Your task to perform on an android device: check battery use Image 0: 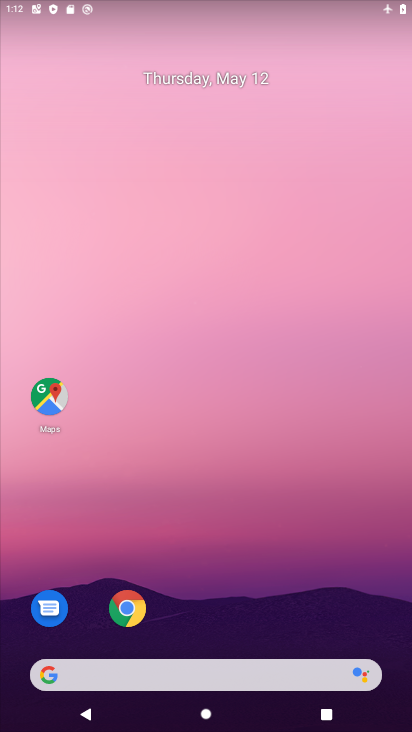
Step 0: drag from (247, 543) to (284, 0)
Your task to perform on an android device: check battery use Image 1: 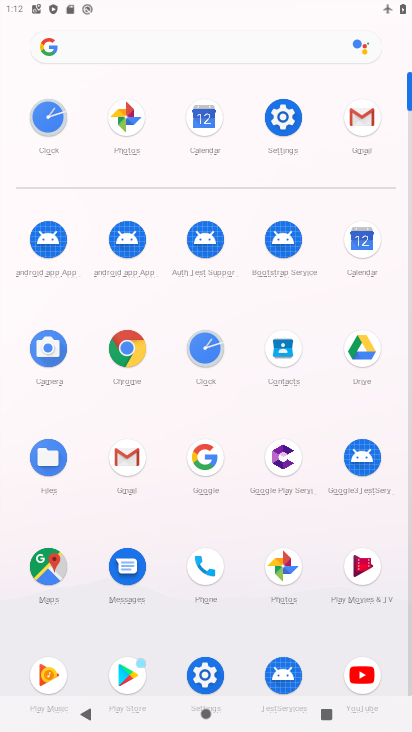
Step 1: click (289, 116)
Your task to perform on an android device: check battery use Image 2: 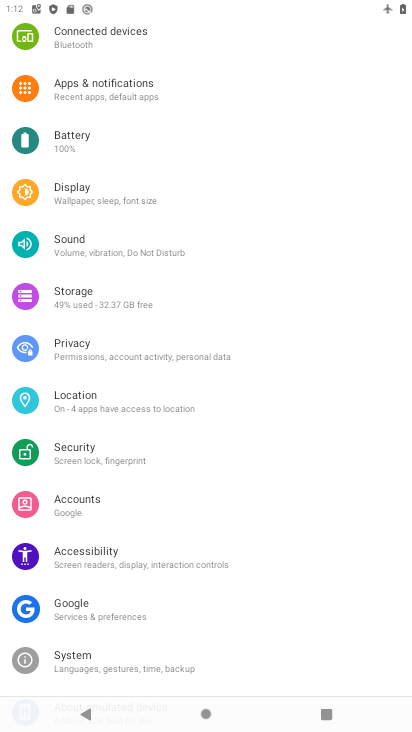
Step 2: click (60, 150)
Your task to perform on an android device: check battery use Image 3: 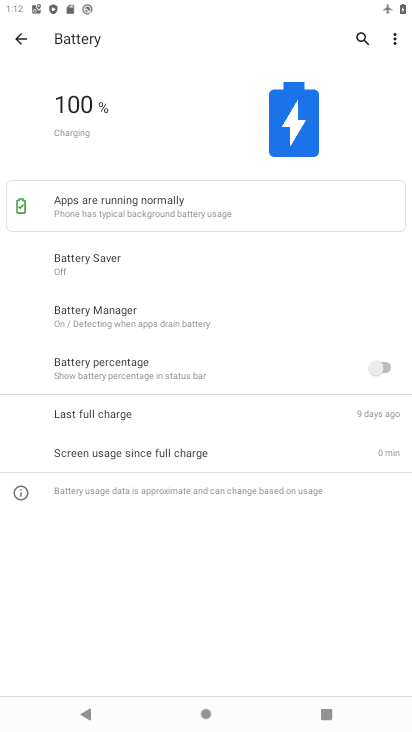
Step 3: click (395, 37)
Your task to perform on an android device: check battery use Image 4: 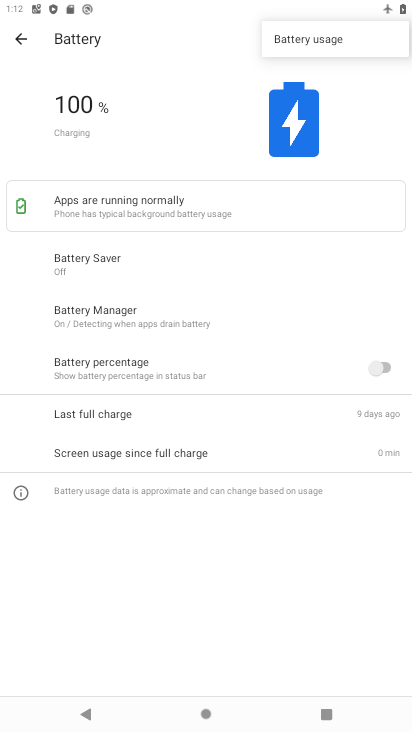
Step 4: click (298, 39)
Your task to perform on an android device: check battery use Image 5: 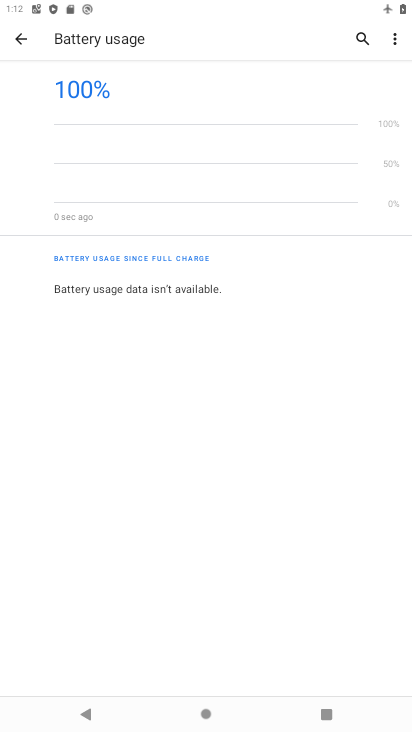
Step 5: task complete